Your task to perform on an android device: check battery use Image 0: 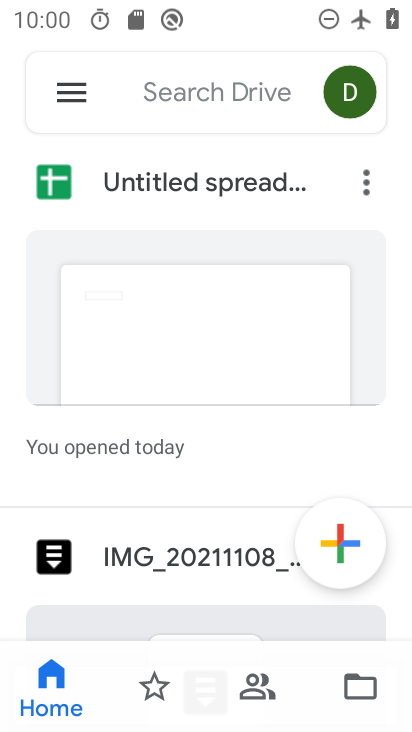
Step 0: press home button
Your task to perform on an android device: check battery use Image 1: 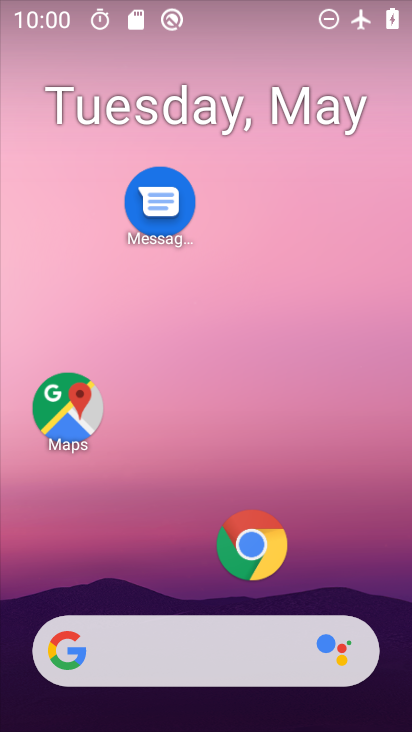
Step 1: drag from (159, 579) to (187, 177)
Your task to perform on an android device: check battery use Image 2: 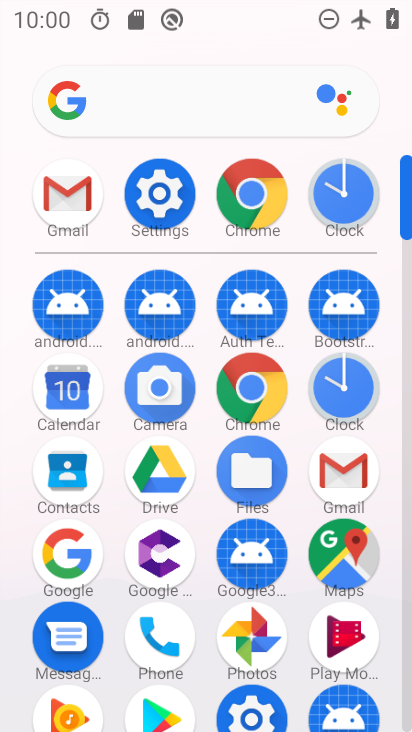
Step 2: click (179, 202)
Your task to perform on an android device: check battery use Image 3: 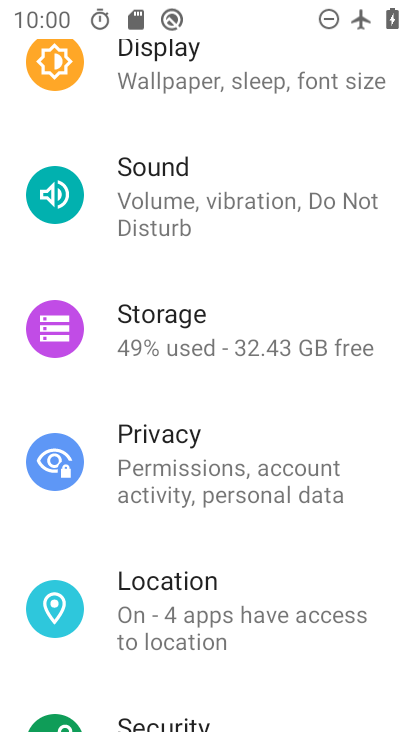
Step 3: drag from (244, 136) to (274, 448)
Your task to perform on an android device: check battery use Image 4: 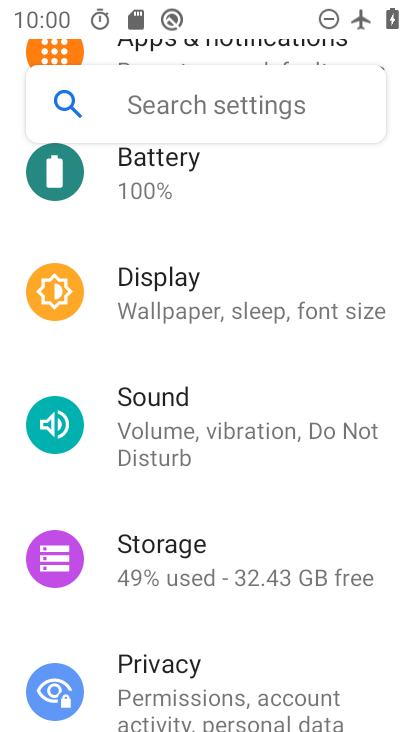
Step 4: click (237, 181)
Your task to perform on an android device: check battery use Image 5: 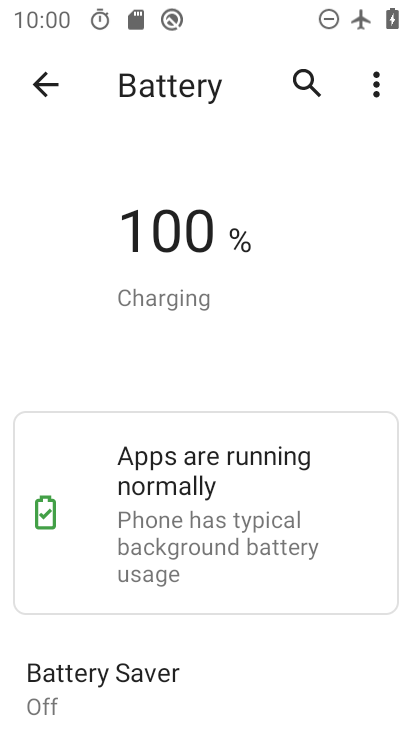
Step 5: click (372, 91)
Your task to perform on an android device: check battery use Image 6: 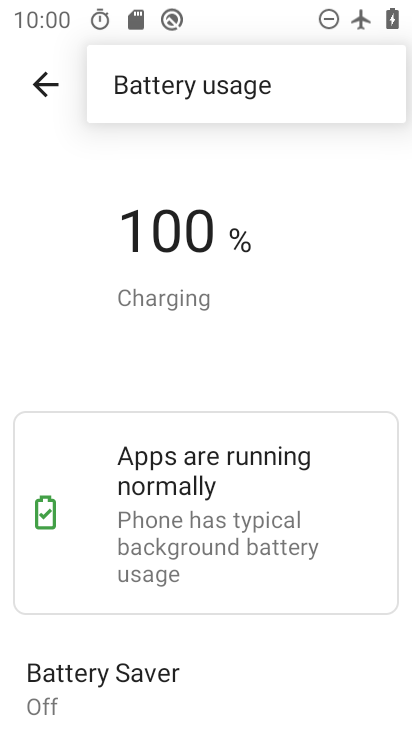
Step 6: click (194, 101)
Your task to perform on an android device: check battery use Image 7: 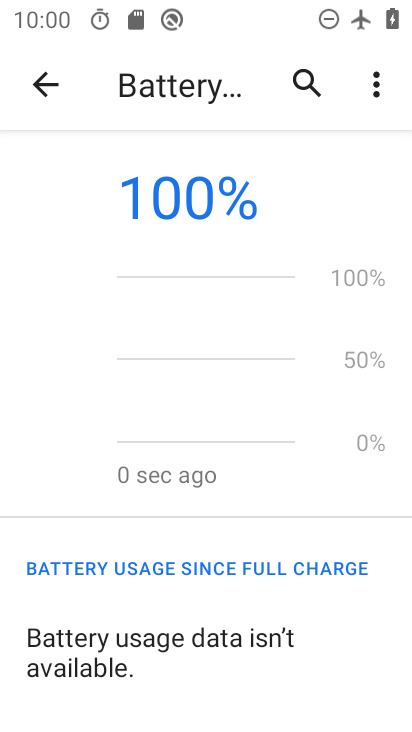
Step 7: task complete